Your task to perform on an android device: empty trash in google photos Image 0: 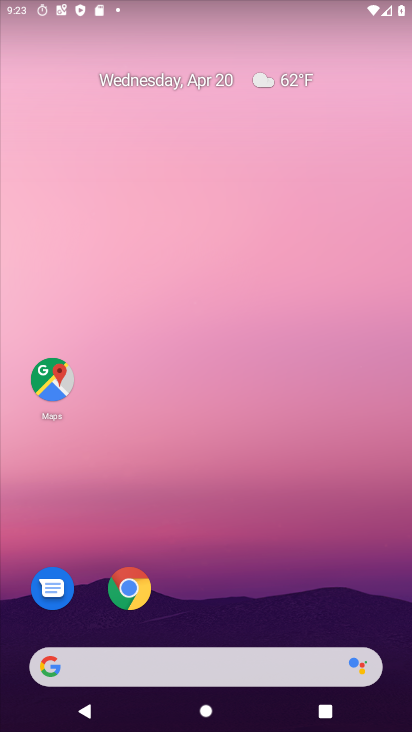
Step 0: click (362, 665)
Your task to perform on an android device: empty trash in google photos Image 1: 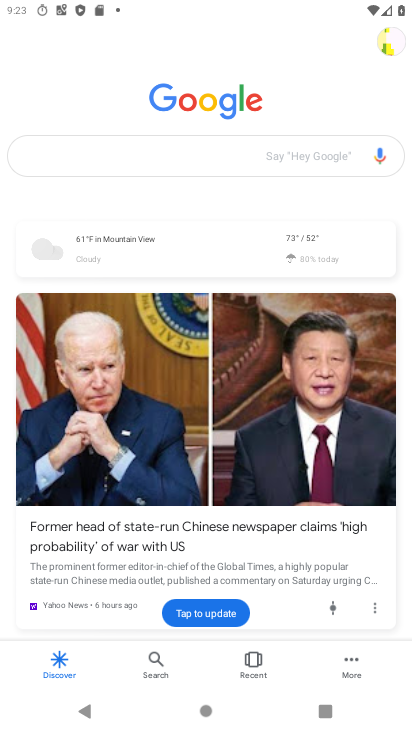
Step 1: press back button
Your task to perform on an android device: empty trash in google photos Image 2: 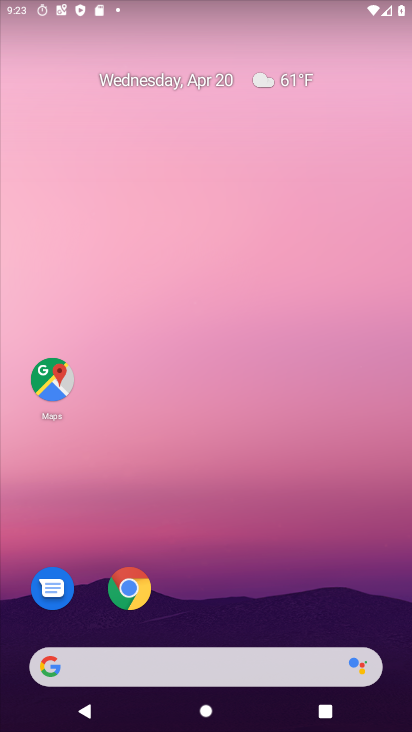
Step 2: drag from (279, 502) to (132, 3)
Your task to perform on an android device: empty trash in google photos Image 3: 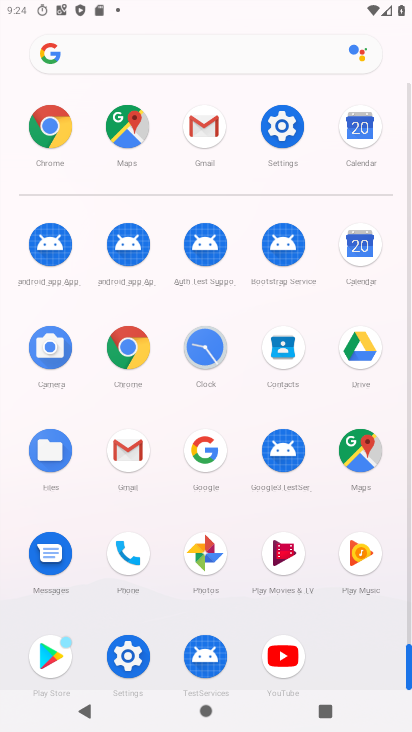
Step 3: click (196, 550)
Your task to perform on an android device: empty trash in google photos Image 4: 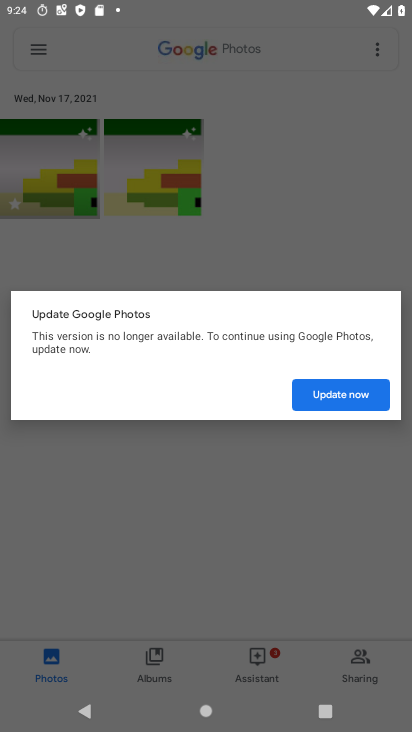
Step 4: click (363, 389)
Your task to perform on an android device: empty trash in google photos Image 5: 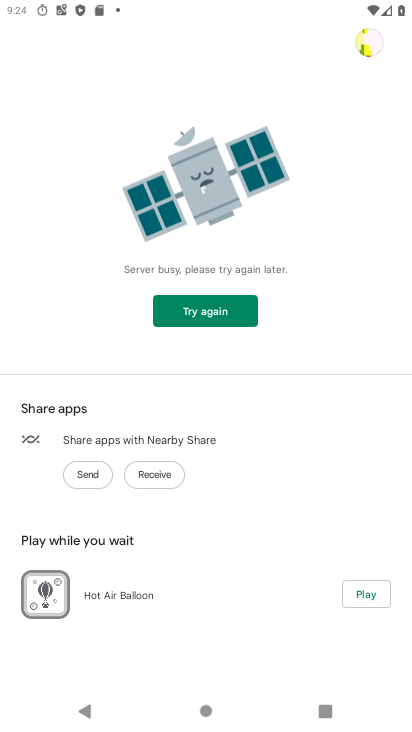
Step 5: click (238, 306)
Your task to perform on an android device: empty trash in google photos Image 6: 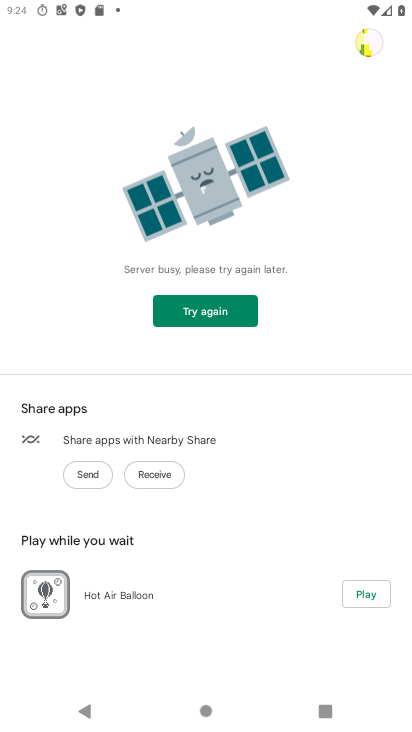
Step 6: press back button
Your task to perform on an android device: empty trash in google photos Image 7: 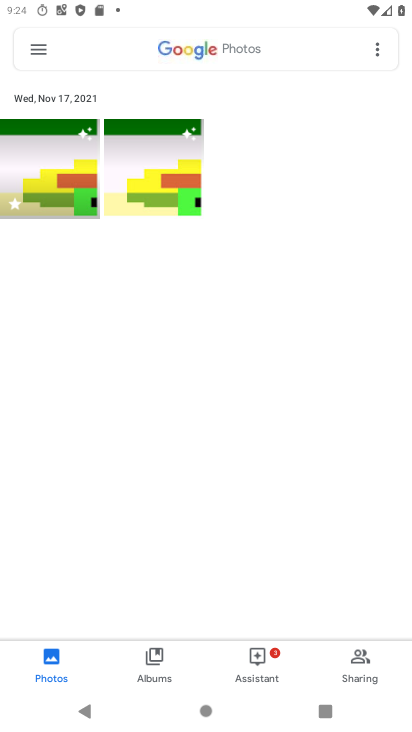
Step 7: click (42, 52)
Your task to perform on an android device: empty trash in google photos Image 8: 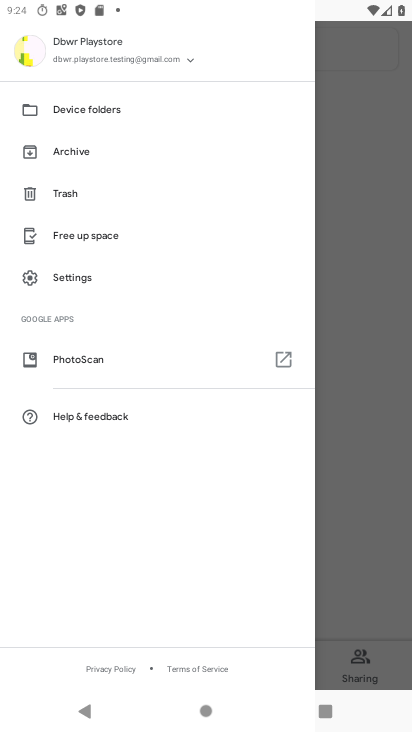
Step 8: click (83, 184)
Your task to perform on an android device: empty trash in google photos Image 9: 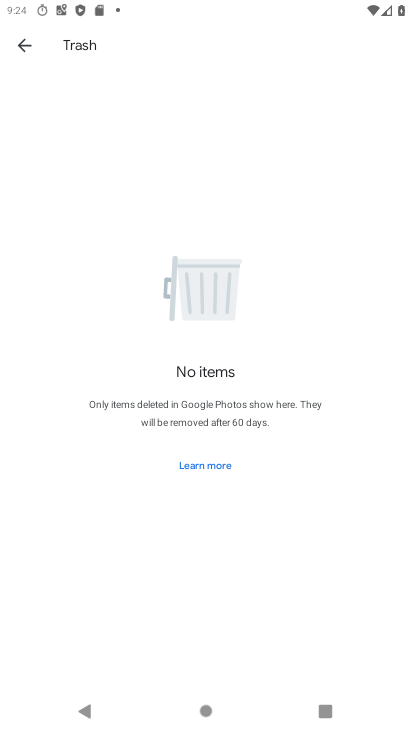
Step 9: task complete